Your task to perform on an android device: What's the price of the Galaxy phone? Image 0: 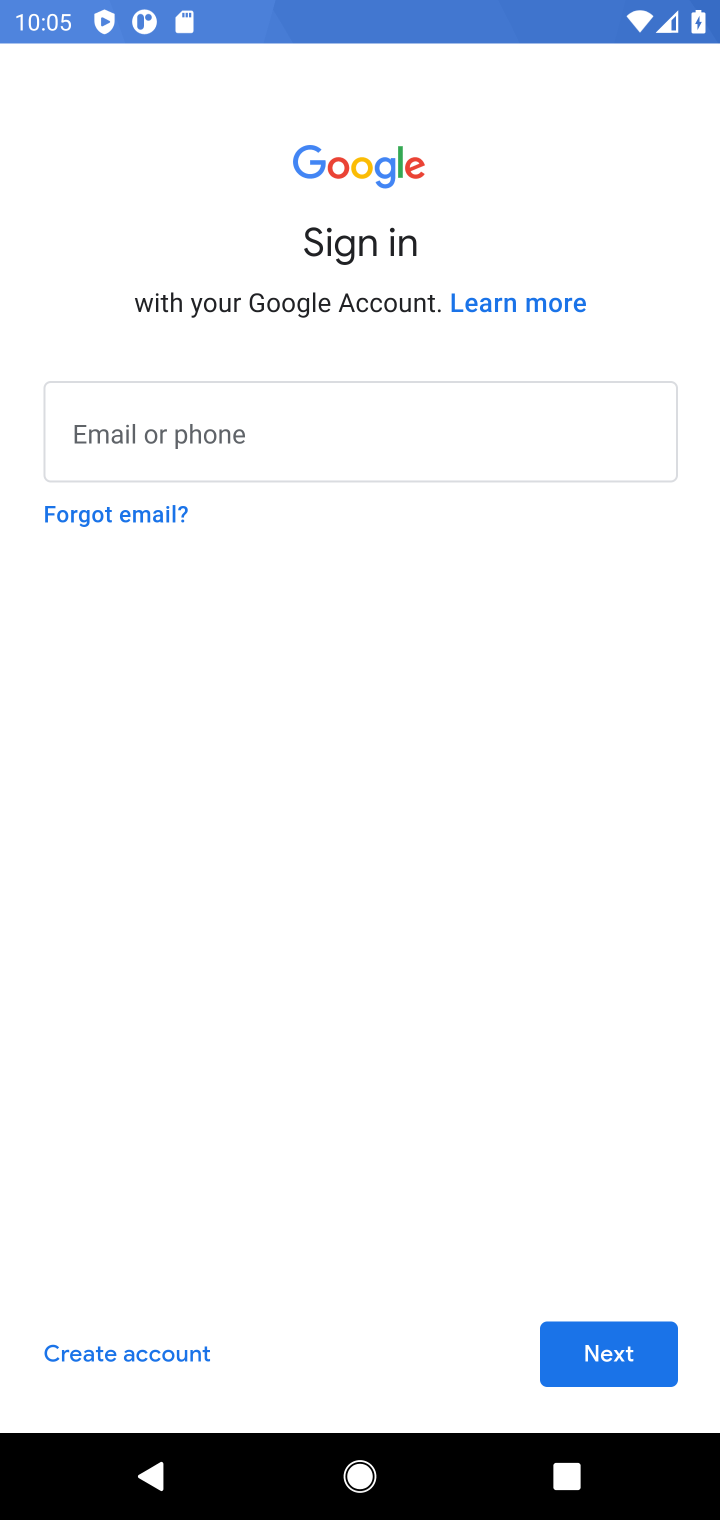
Step 0: press home button
Your task to perform on an android device: What's the price of the Galaxy phone? Image 1: 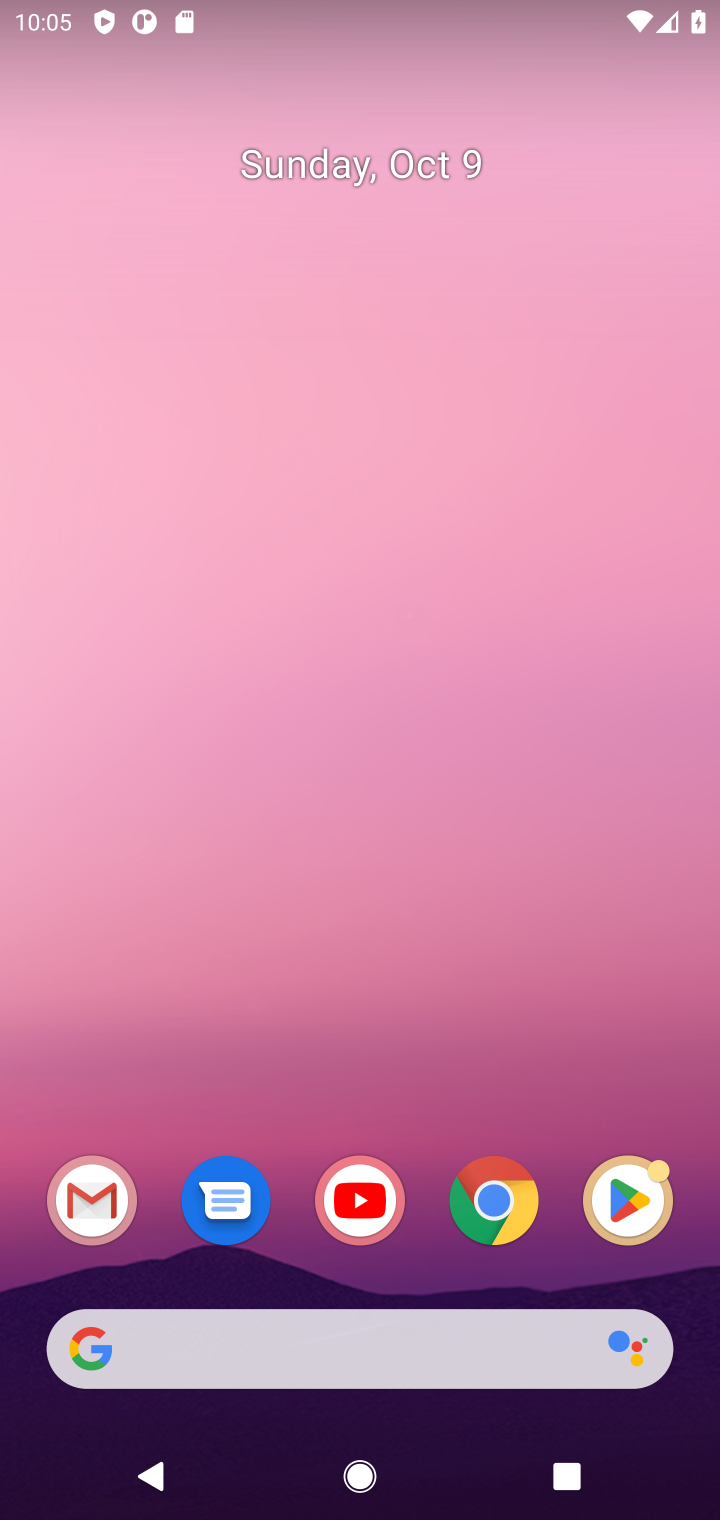
Step 1: click (515, 1195)
Your task to perform on an android device: What's the price of the Galaxy phone? Image 2: 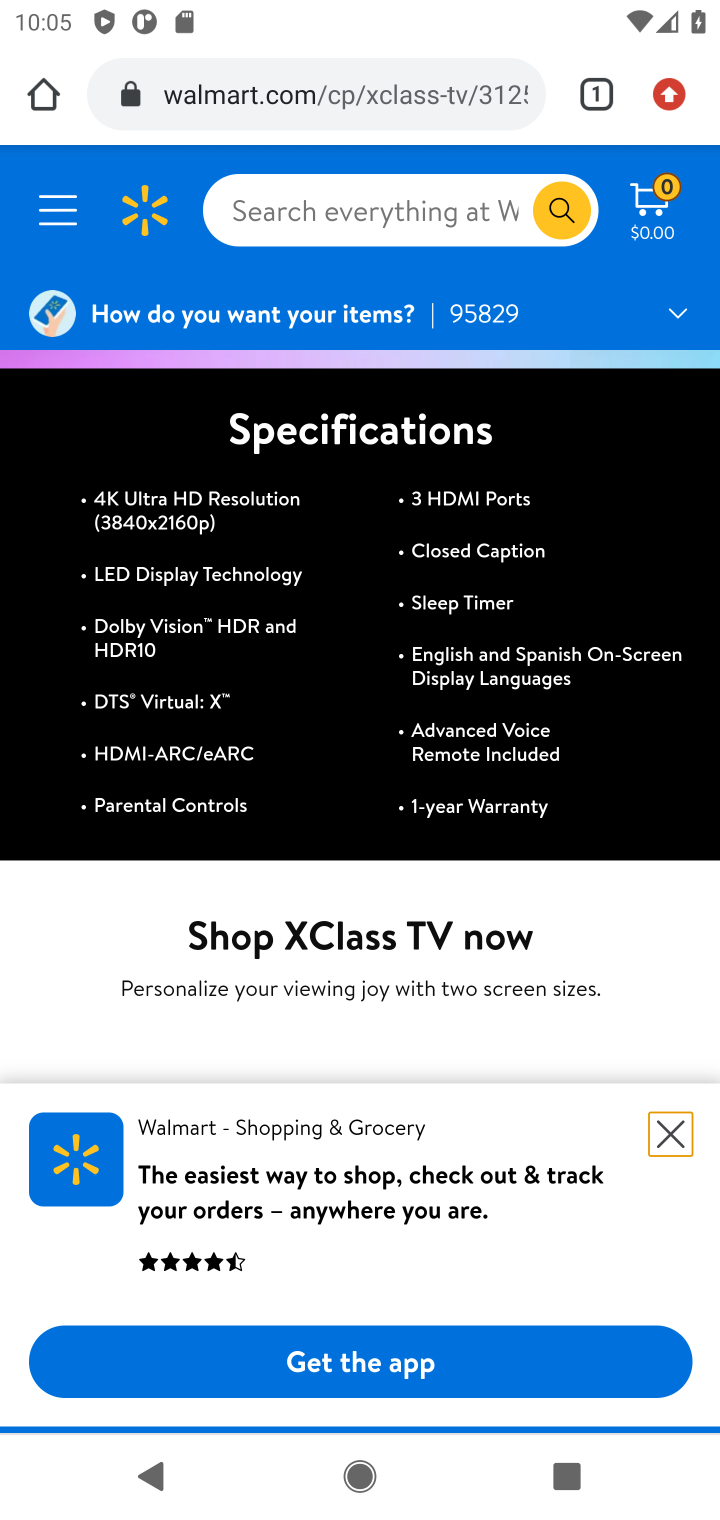
Step 2: click (296, 105)
Your task to perform on an android device: What's the price of the Galaxy phone? Image 3: 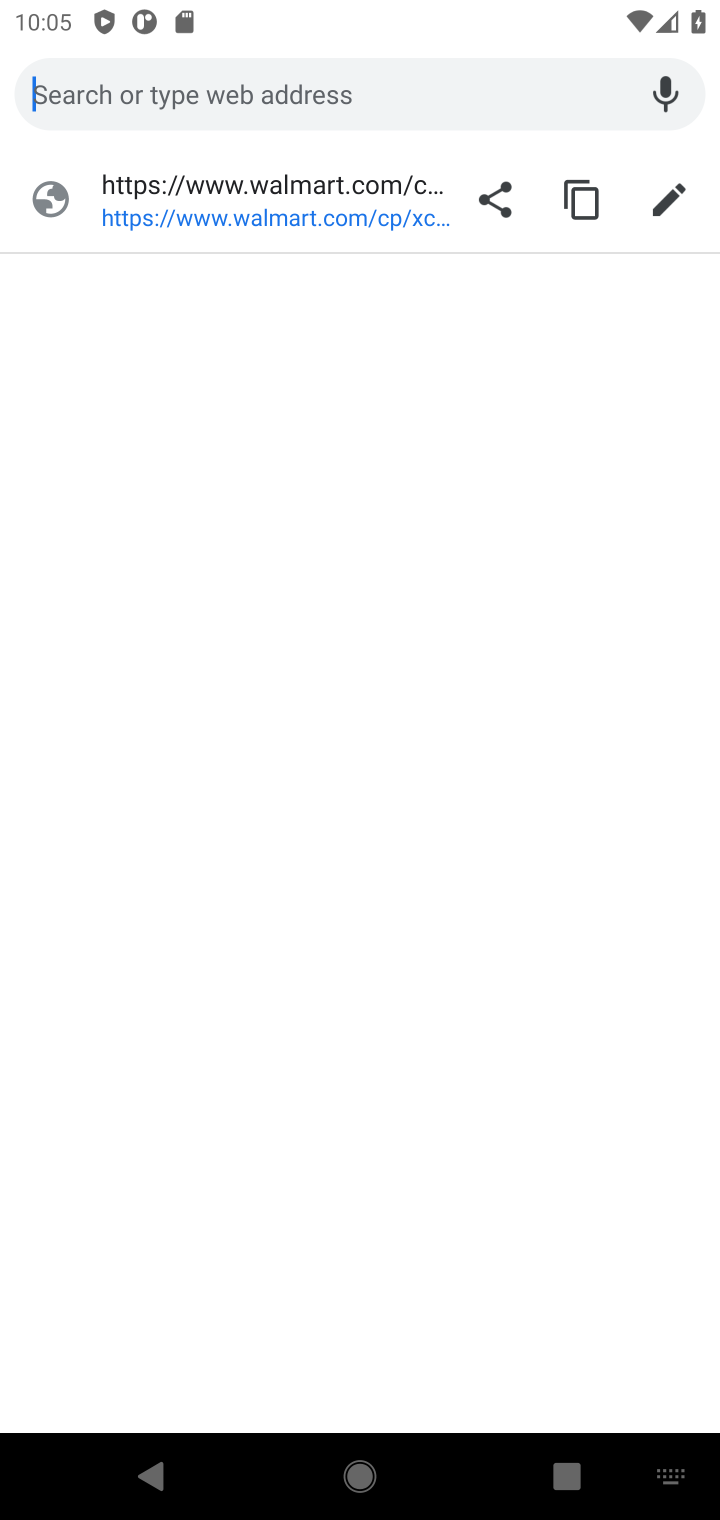
Step 3: type "What's the price of the Galaxy phone?"
Your task to perform on an android device: What's the price of the Galaxy phone? Image 4: 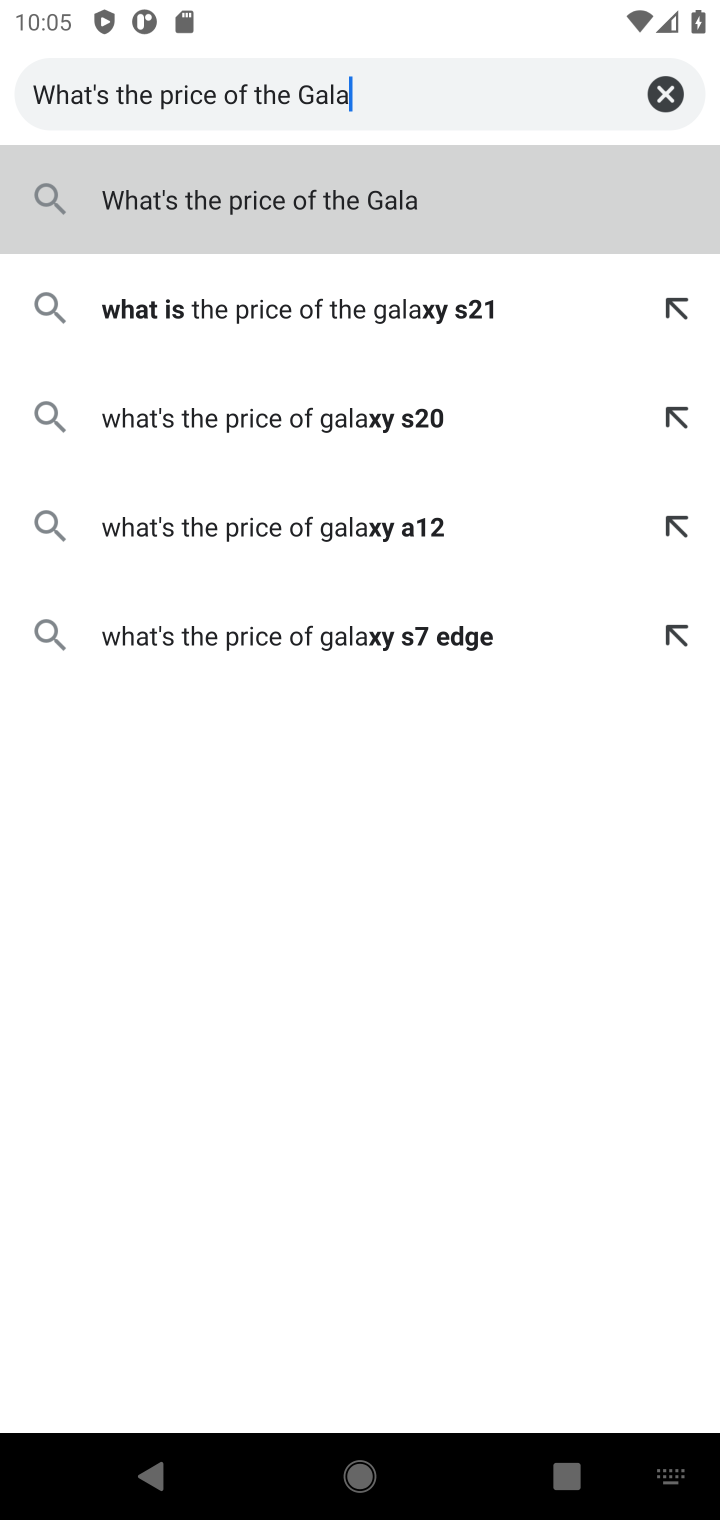
Step 4: type "xy phone"
Your task to perform on an android device: What's the price of the Galaxy phone? Image 5: 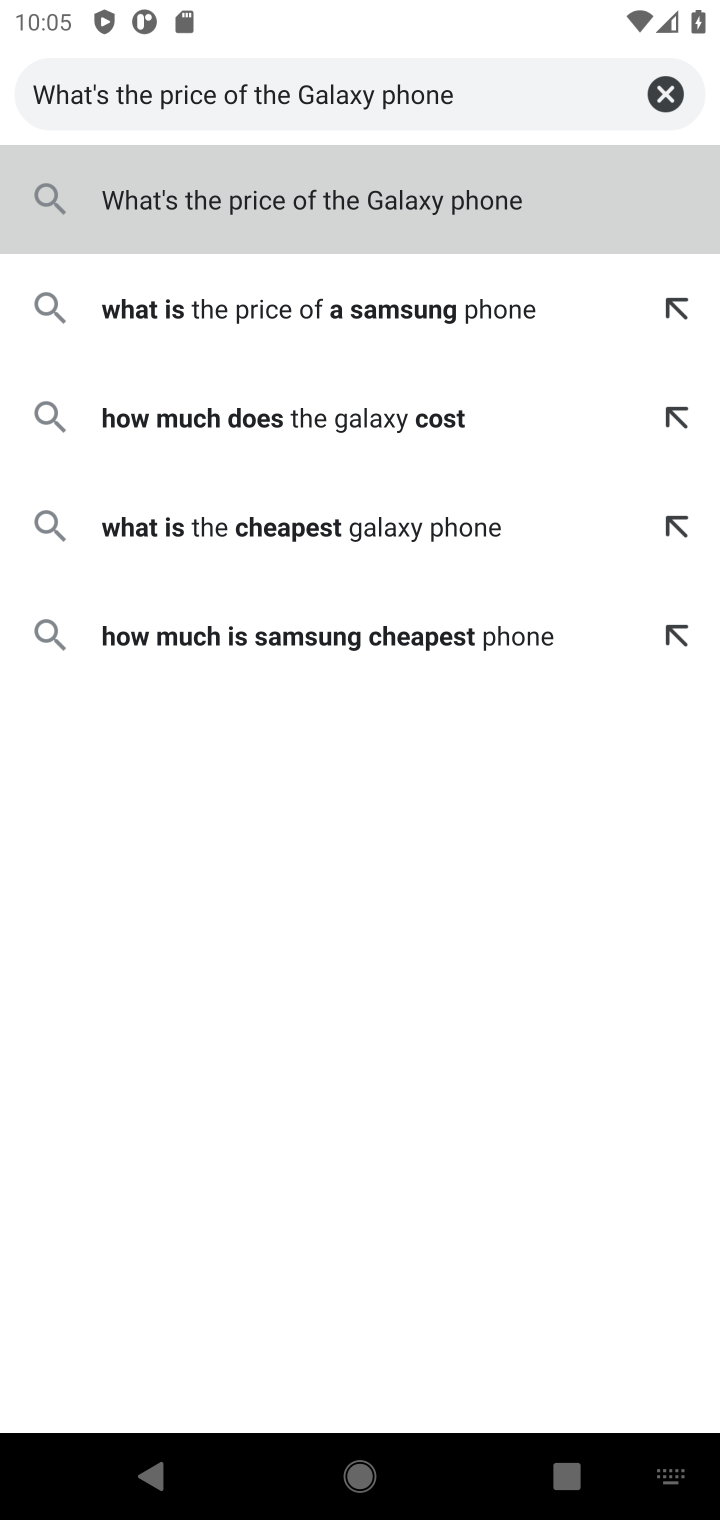
Step 5: task complete